Your task to perform on an android device: Search for vintage wall art on Etsy. Image 0: 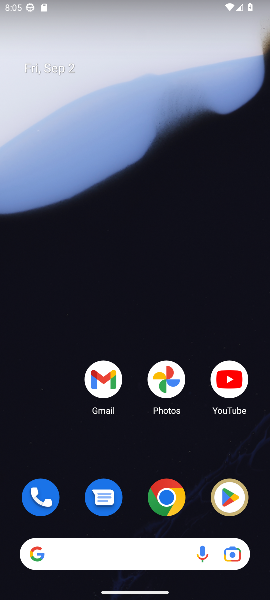
Step 0: drag from (121, 522) to (113, 233)
Your task to perform on an android device: Search for vintage wall art on Etsy. Image 1: 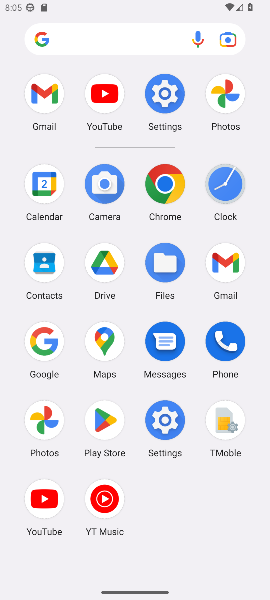
Step 1: click (36, 340)
Your task to perform on an android device: Search for vintage wall art on Etsy. Image 2: 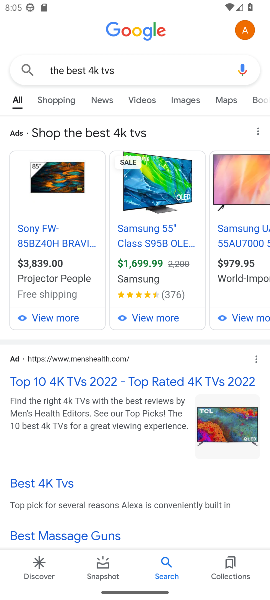
Step 2: click (136, 68)
Your task to perform on an android device: Search for vintage wall art on Etsy. Image 3: 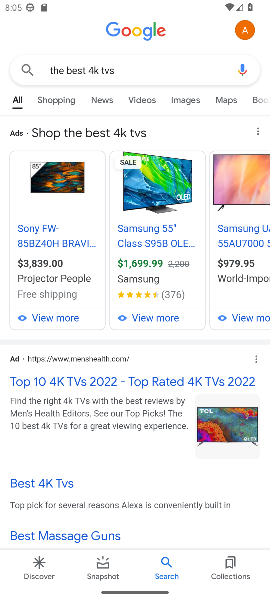
Step 3: click (136, 68)
Your task to perform on an android device: Search for vintage wall art on Etsy. Image 4: 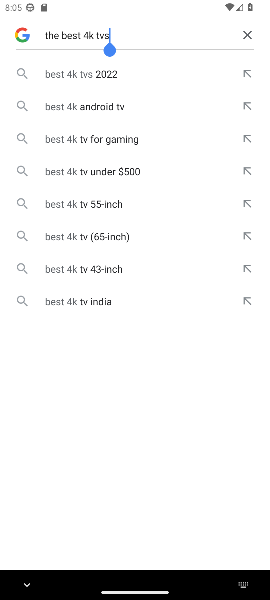
Step 4: click (246, 35)
Your task to perform on an android device: Search for vintage wall art on Etsy. Image 5: 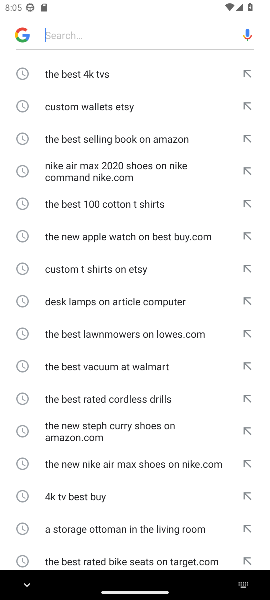
Step 5: type " vintage wall art on Etsy."
Your task to perform on an android device: Search for vintage wall art on Etsy. Image 6: 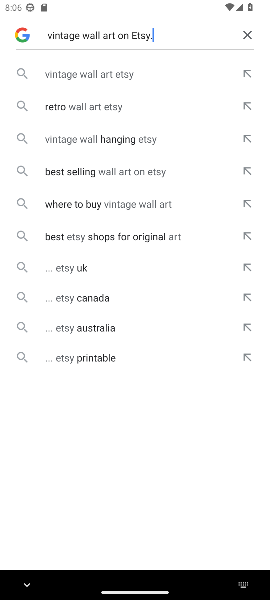
Step 6: click (116, 71)
Your task to perform on an android device: Search for vintage wall art on Etsy. Image 7: 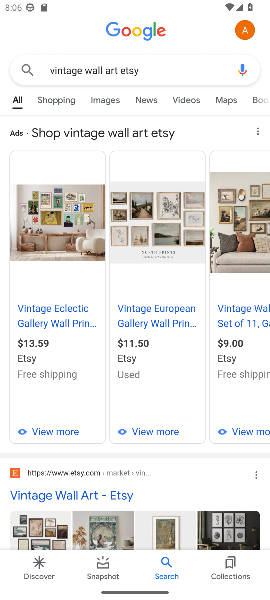
Step 7: task complete